Your task to perform on an android device: Open battery settings Image 0: 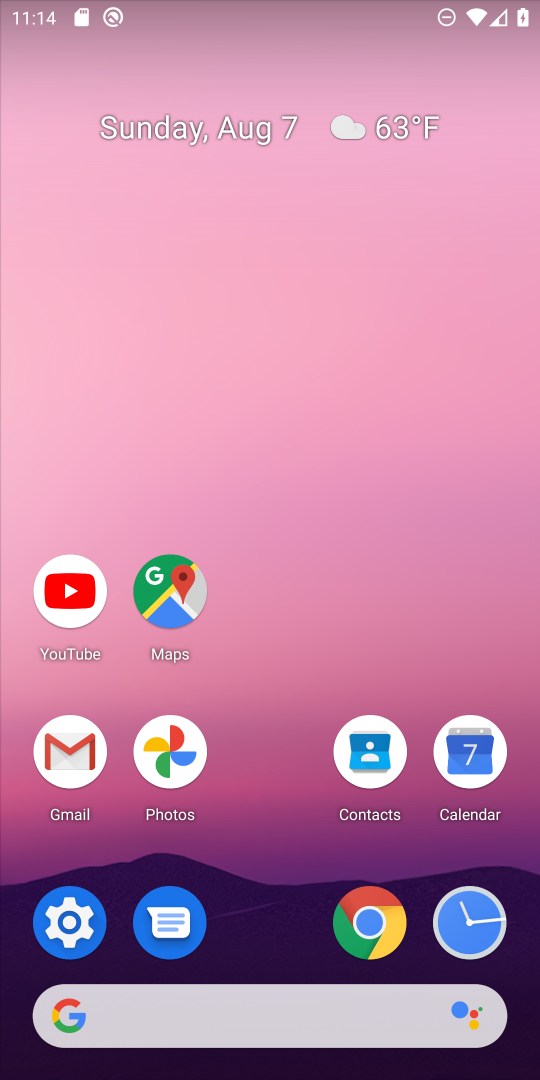
Step 0: click (74, 922)
Your task to perform on an android device: Open battery settings Image 1: 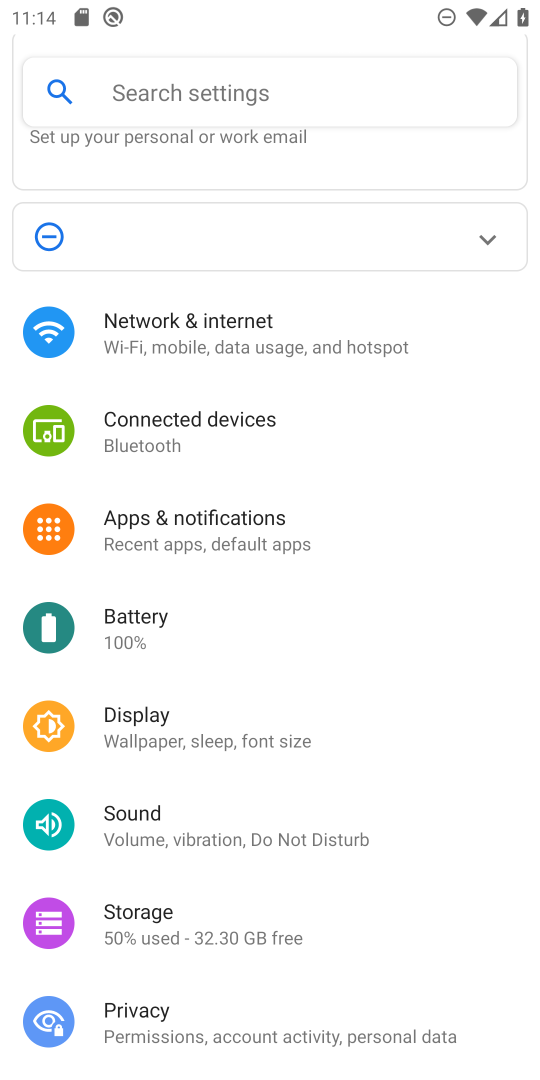
Step 1: click (136, 613)
Your task to perform on an android device: Open battery settings Image 2: 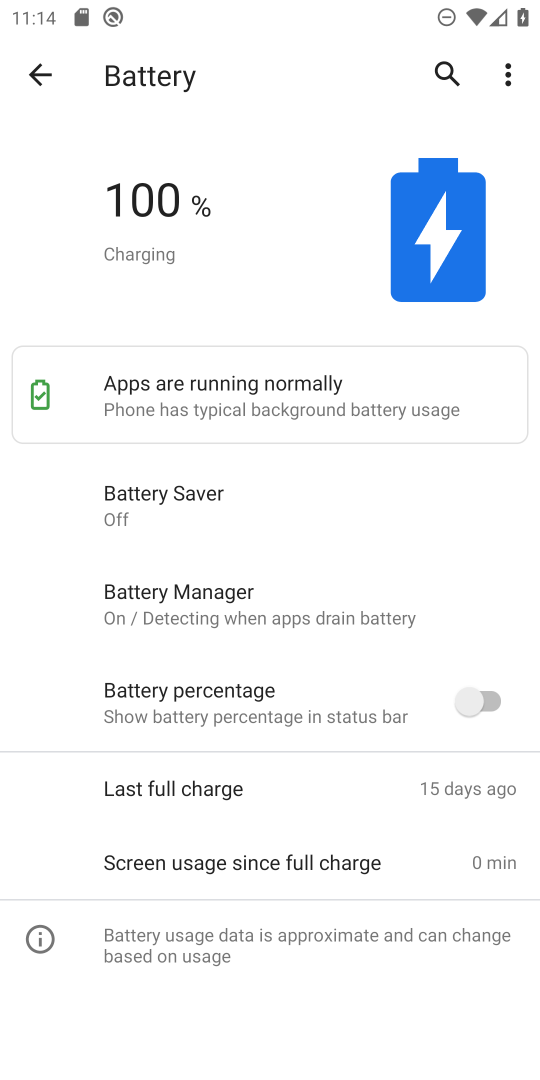
Step 2: task complete